Your task to perform on an android device: Check the news Image 0: 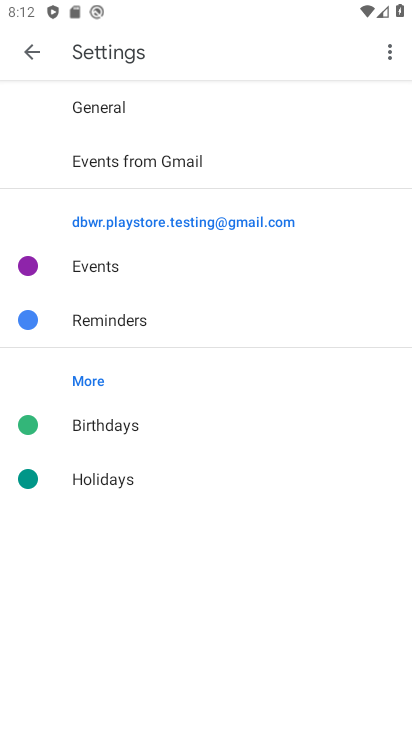
Step 0: press home button
Your task to perform on an android device: Check the news Image 1: 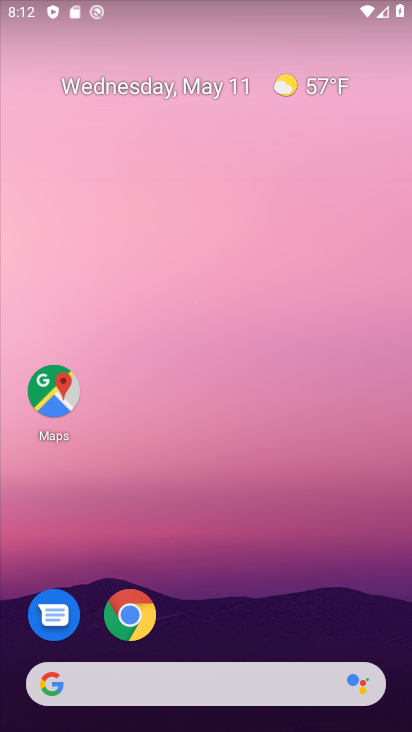
Step 1: task complete